Your task to perform on an android device: turn on the 24-hour format for clock Image 0: 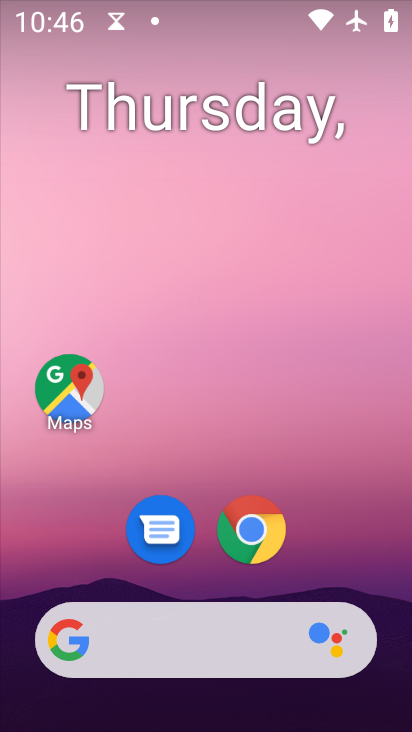
Step 0: drag from (302, 586) to (207, 0)
Your task to perform on an android device: turn on the 24-hour format for clock Image 1: 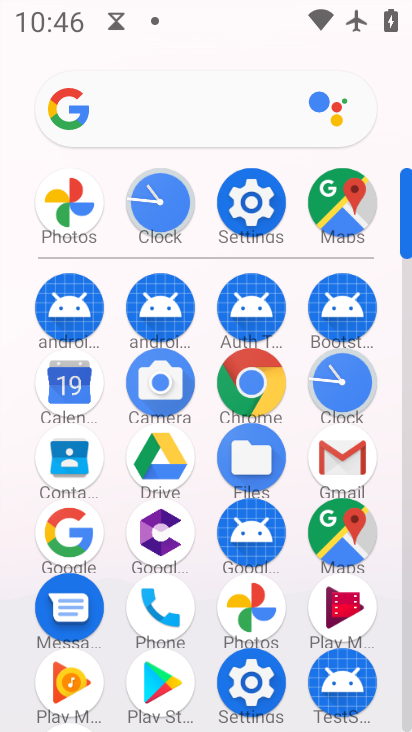
Step 1: click (347, 383)
Your task to perform on an android device: turn on the 24-hour format for clock Image 2: 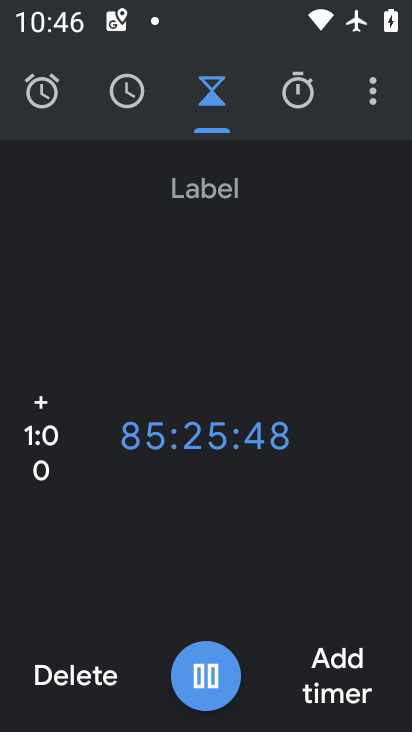
Step 2: click (363, 84)
Your task to perform on an android device: turn on the 24-hour format for clock Image 3: 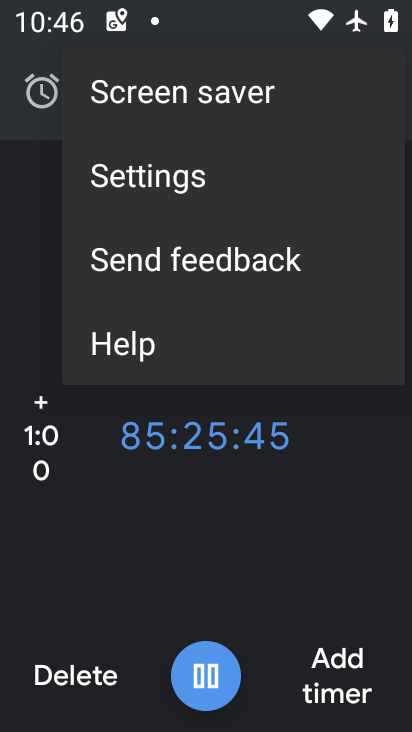
Step 3: click (145, 187)
Your task to perform on an android device: turn on the 24-hour format for clock Image 4: 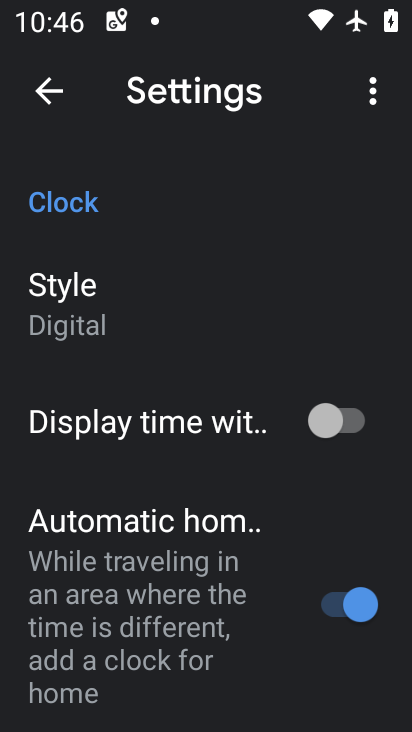
Step 4: drag from (139, 627) to (124, 189)
Your task to perform on an android device: turn on the 24-hour format for clock Image 5: 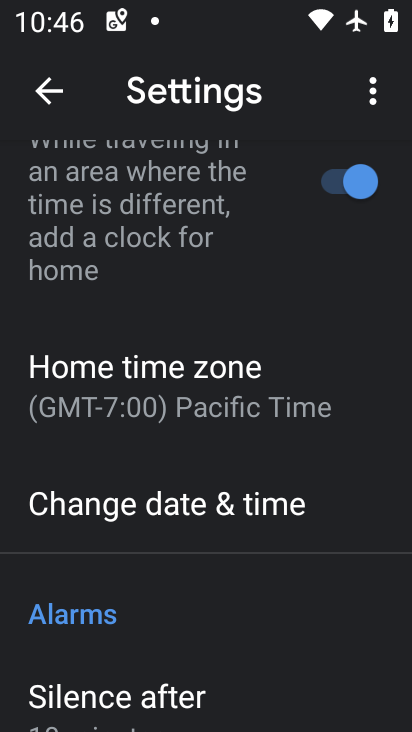
Step 5: click (155, 521)
Your task to perform on an android device: turn on the 24-hour format for clock Image 6: 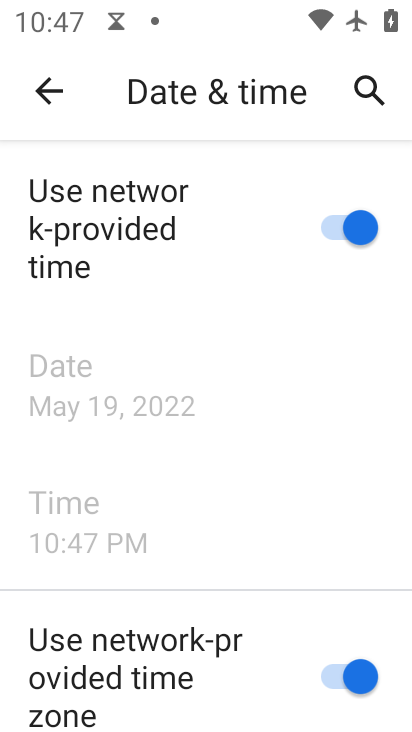
Step 6: drag from (169, 661) to (164, 192)
Your task to perform on an android device: turn on the 24-hour format for clock Image 7: 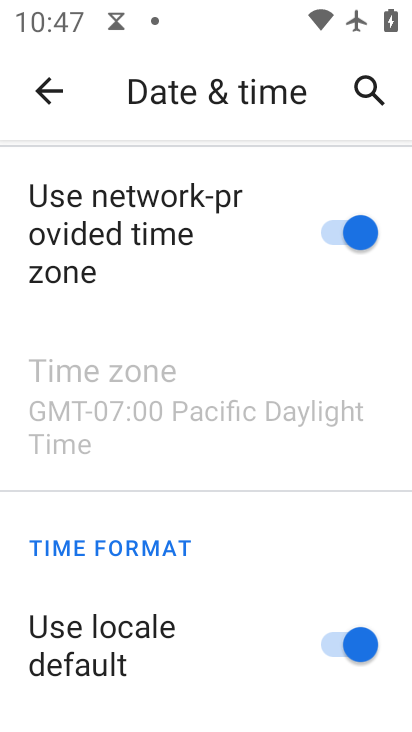
Step 7: drag from (348, 606) to (319, 267)
Your task to perform on an android device: turn on the 24-hour format for clock Image 8: 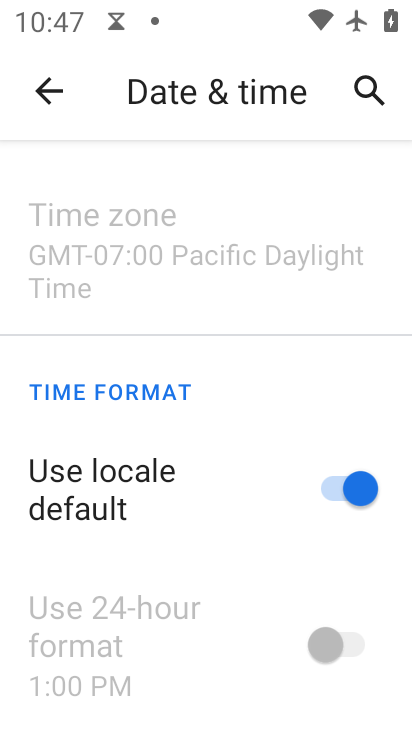
Step 8: click (322, 503)
Your task to perform on an android device: turn on the 24-hour format for clock Image 9: 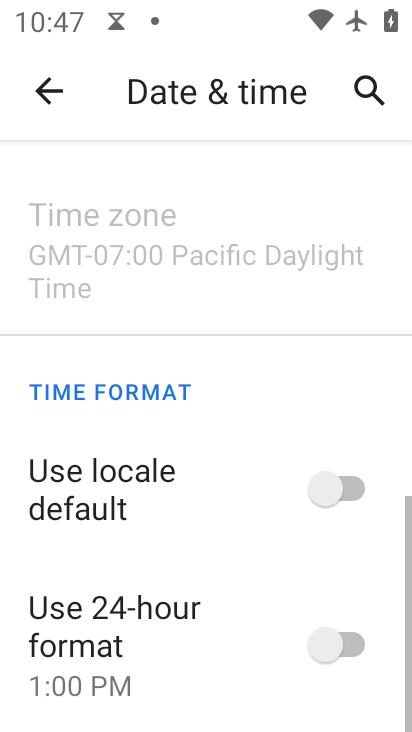
Step 9: click (335, 643)
Your task to perform on an android device: turn on the 24-hour format for clock Image 10: 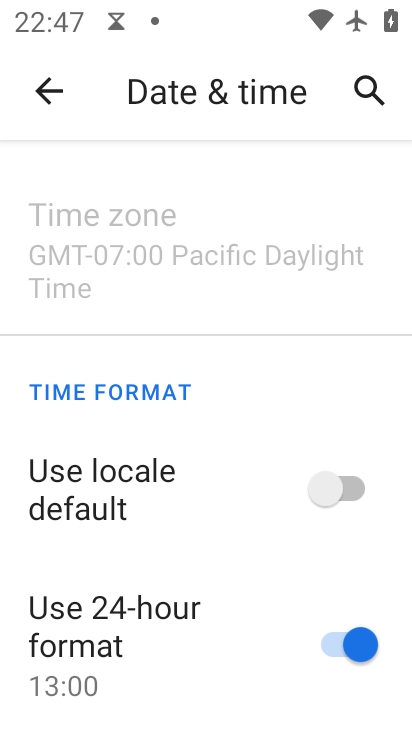
Step 10: task complete